Your task to perform on an android device: turn off location Image 0: 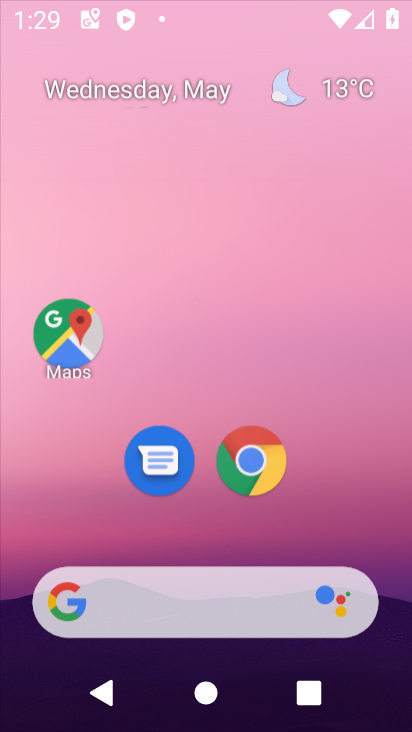
Step 0: press home button
Your task to perform on an android device: turn off location Image 1: 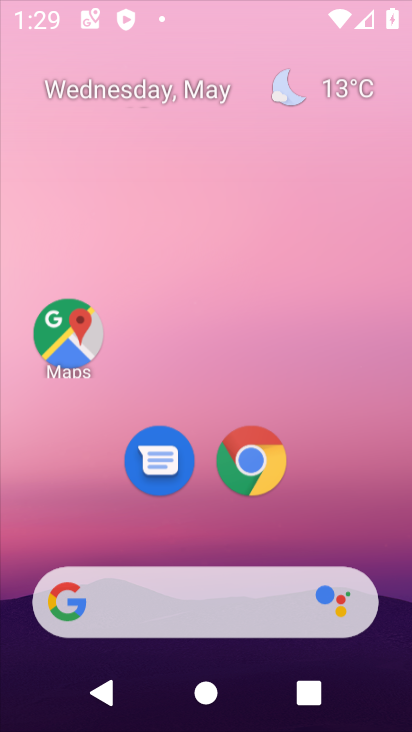
Step 1: click (330, 89)
Your task to perform on an android device: turn off location Image 2: 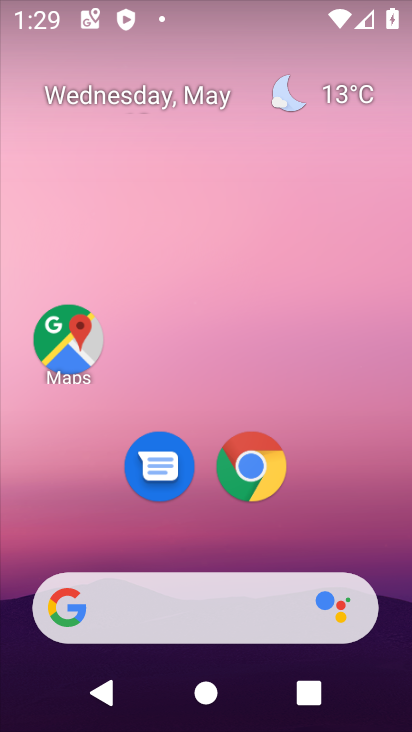
Step 2: drag from (385, 506) to (365, 3)
Your task to perform on an android device: turn off location Image 3: 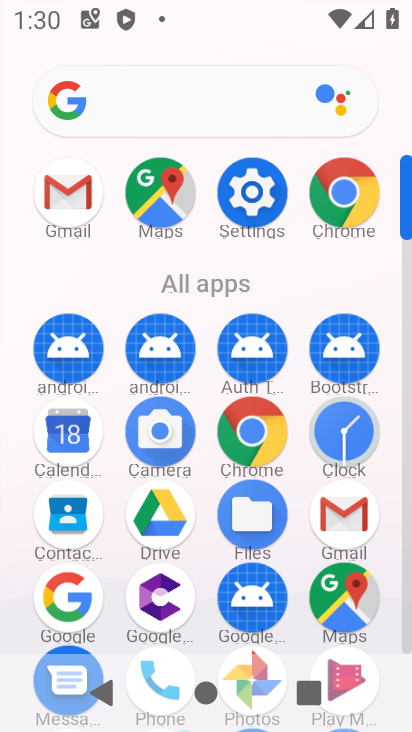
Step 3: drag from (408, 580) to (399, 667)
Your task to perform on an android device: turn off location Image 4: 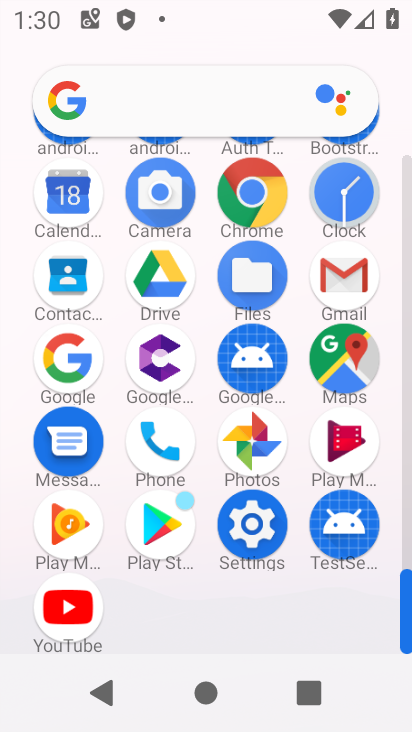
Step 4: click (254, 539)
Your task to perform on an android device: turn off location Image 5: 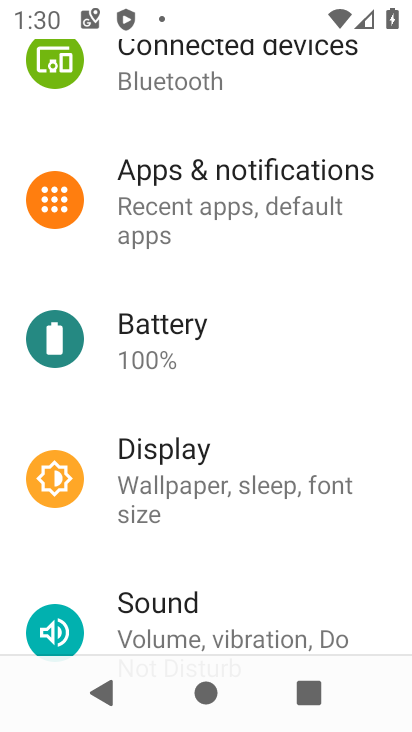
Step 5: drag from (205, 547) to (203, 38)
Your task to perform on an android device: turn off location Image 6: 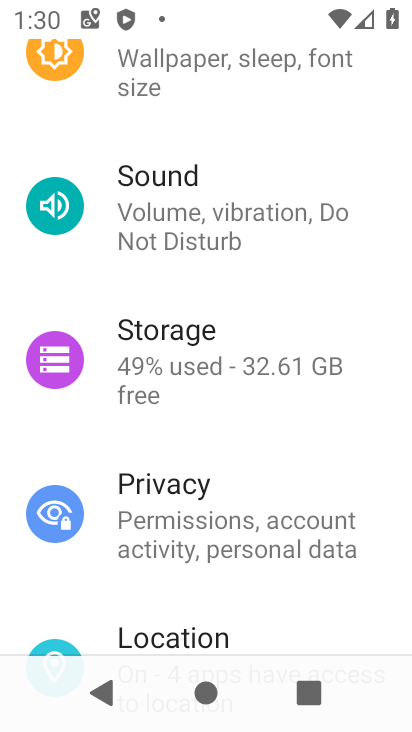
Step 6: drag from (200, 505) to (216, 240)
Your task to perform on an android device: turn off location Image 7: 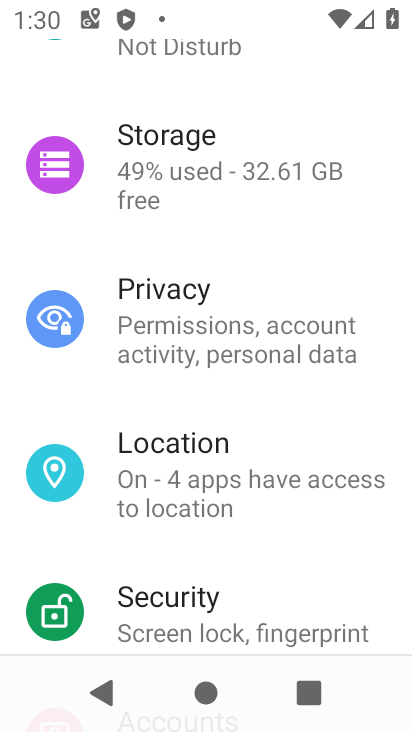
Step 7: click (229, 435)
Your task to perform on an android device: turn off location Image 8: 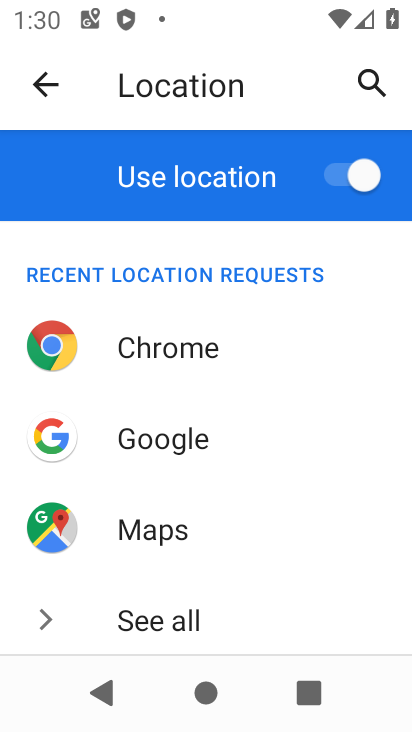
Step 8: click (338, 191)
Your task to perform on an android device: turn off location Image 9: 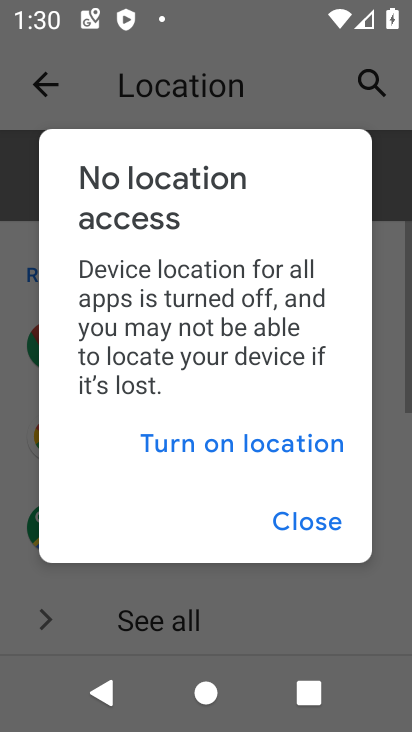
Step 9: task complete